Your task to perform on an android device: toggle improve location accuracy Image 0: 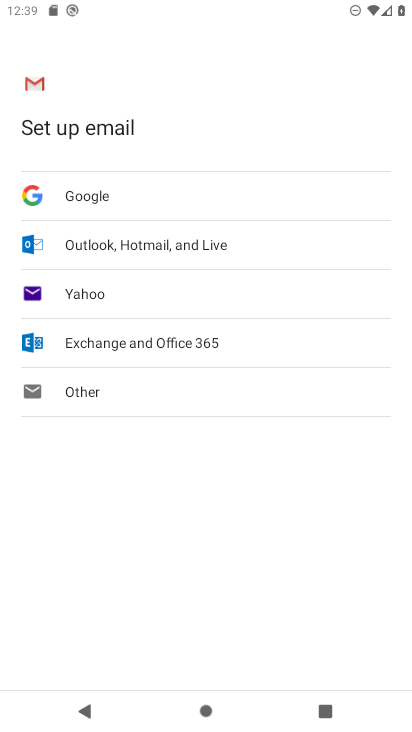
Step 0: press home button
Your task to perform on an android device: toggle improve location accuracy Image 1: 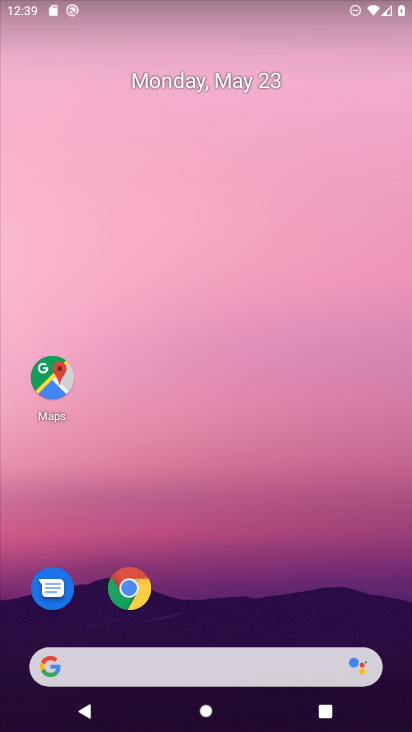
Step 1: drag from (189, 648) to (202, 159)
Your task to perform on an android device: toggle improve location accuracy Image 2: 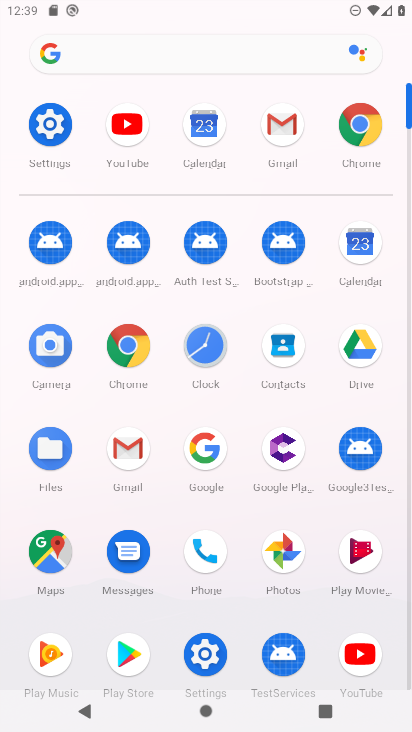
Step 2: click (48, 129)
Your task to perform on an android device: toggle improve location accuracy Image 3: 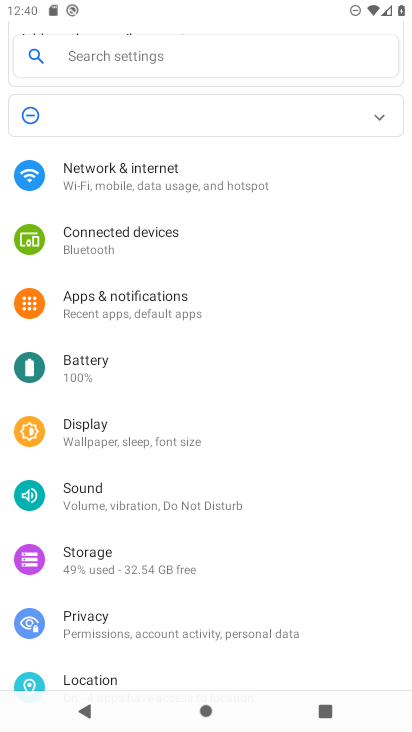
Step 3: drag from (159, 623) to (147, 258)
Your task to perform on an android device: toggle improve location accuracy Image 4: 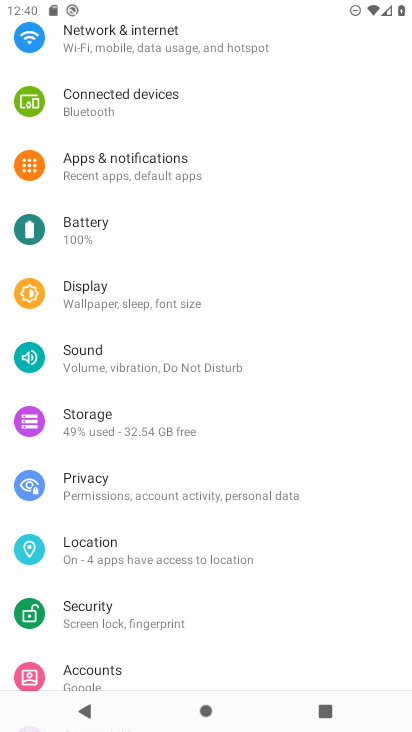
Step 4: click (146, 542)
Your task to perform on an android device: toggle improve location accuracy Image 5: 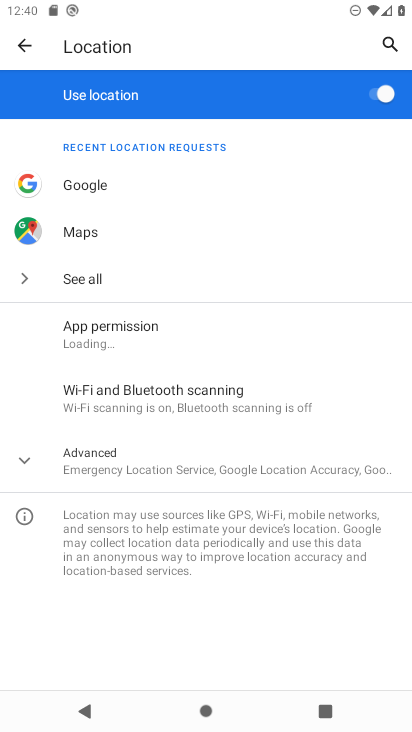
Step 5: click (137, 466)
Your task to perform on an android device: toggle improve location accuracy Image 6: 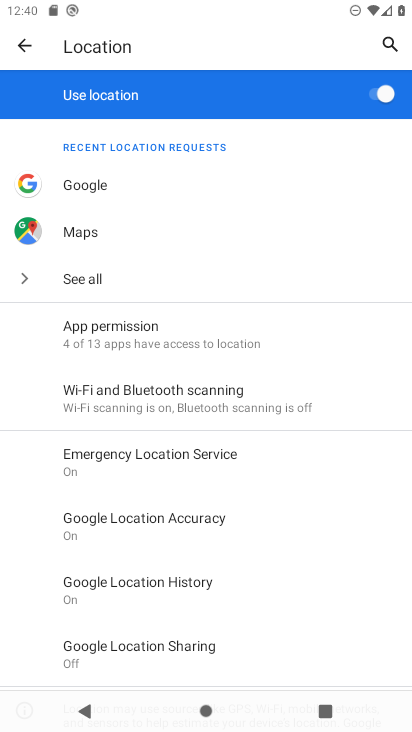
Step 6: click (153, 524)
Your task to perform on an android device: toggle improve location accuracy Image 7: 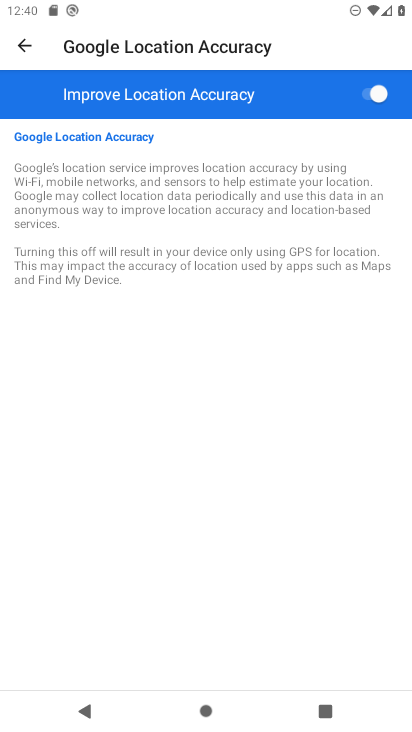
Step 7: click (366, 99)
Your task to perform on an android device: toggle improve location accuracy Image 8: 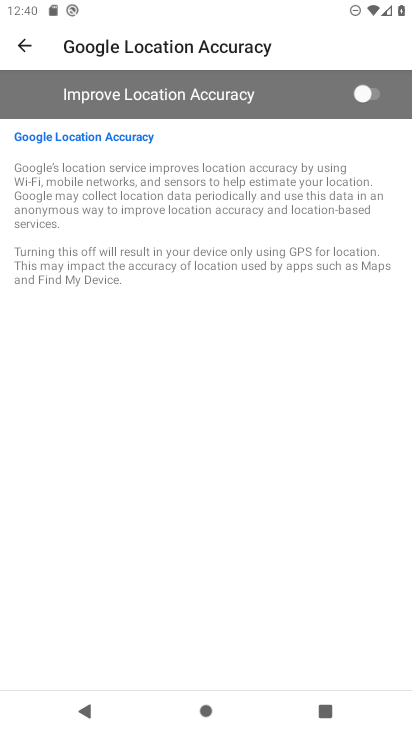
Step 8: task complete